Your task to perform on an android device: star an email in the gmail app Image 0: 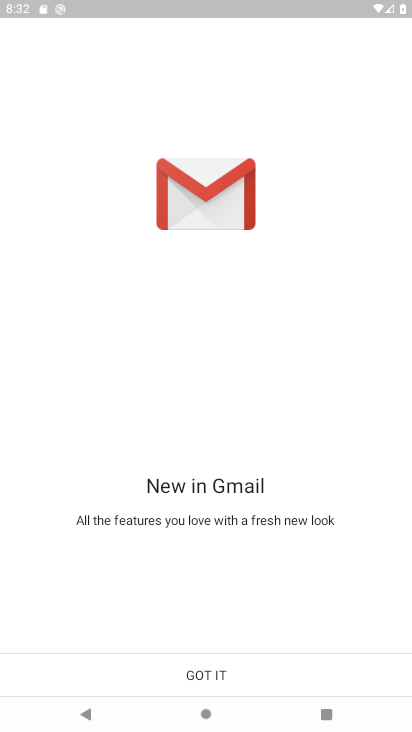
Step 0: click (207, 668)
Your task to perform on an android device: star an email in the gmail app Image 1: 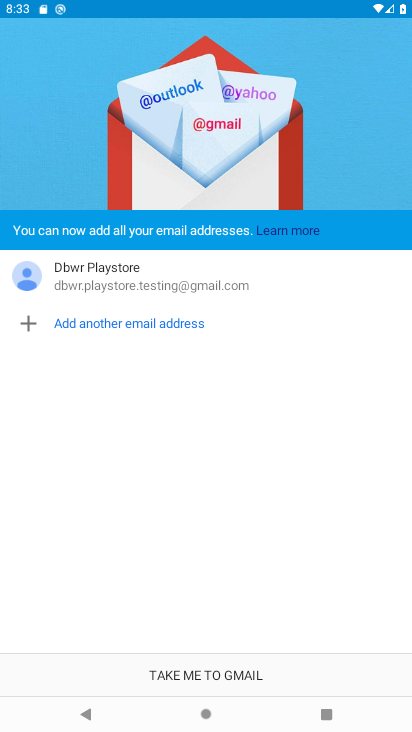
Step 1: click (260, 673)
Your task to perform on an android device: star an email in the gmail app Image 2: 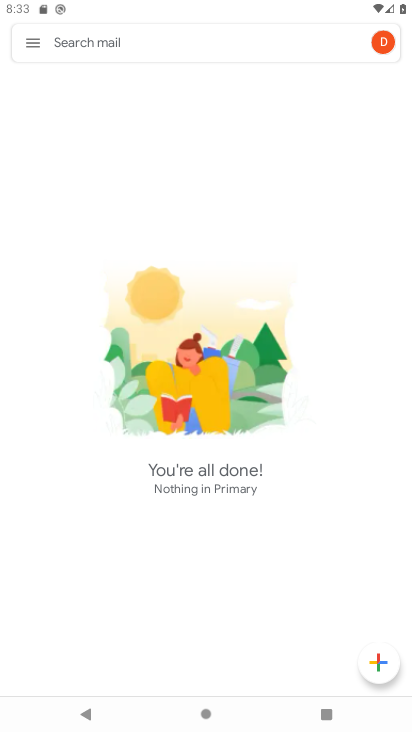
Step 2: task complete